Your task to perform on an android device: turn on notifications settings in the gmail app Image 0: 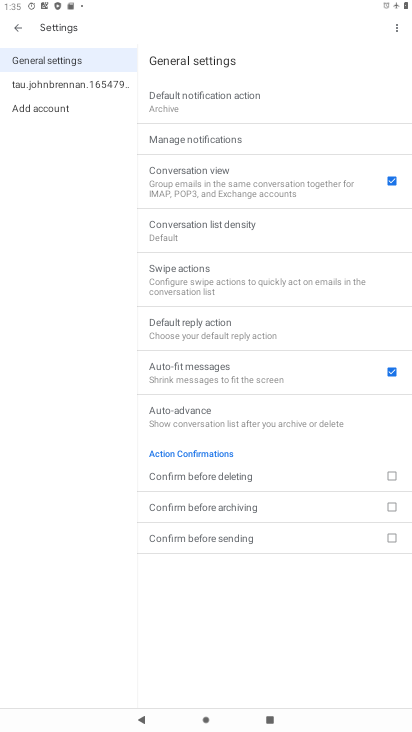
Step 0: press home button
Your task to perform on an android device: turn on notifications settings in the gmail app Image 1: 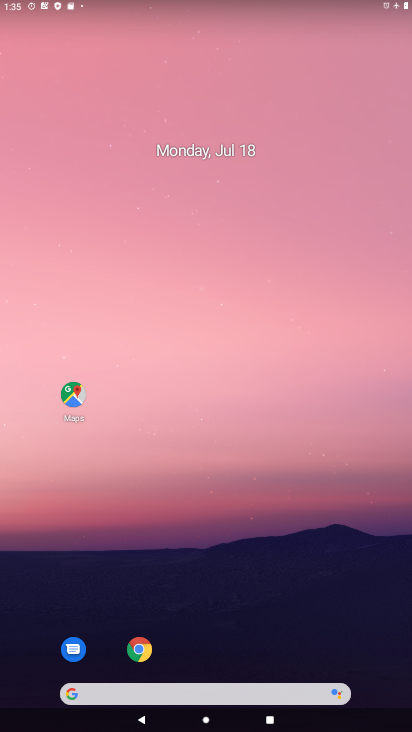
Step 1: drag from (260, 672) to (406, 693)
Your task to perform on an android device: turn on notifications settings in the gmail app Image 2: 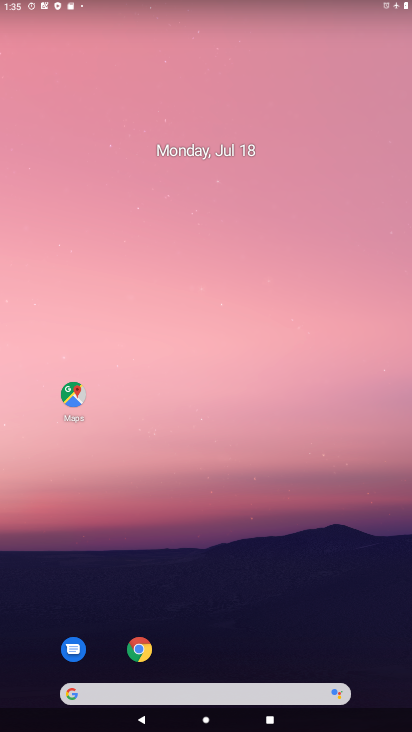
Step 2: drag from (215, 661) to (157, 9)
Your task to perform on an android device: turn on notifications settings in the gmail app Image 3: 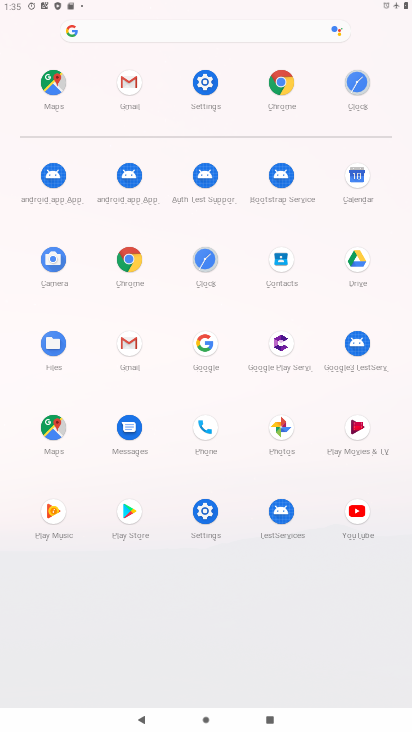
Step 3: click (130, 351)
Your task to perform on an android device: turn on notifications settings in the gmail app Image 4: 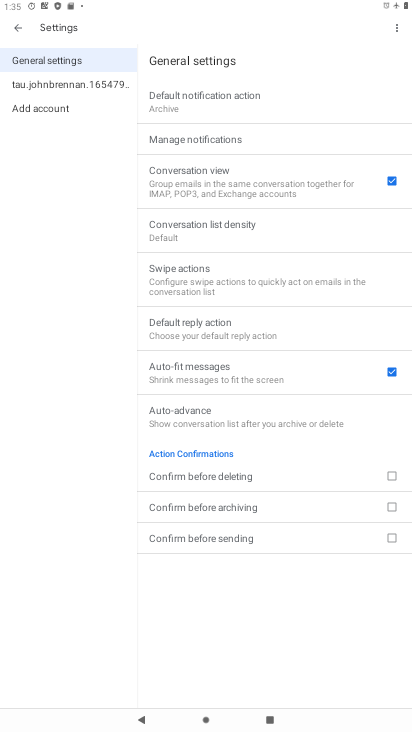
Step 4: click (179, 127)
Your task to perform on an android device: turn on notifications settings in the gmail app Image 5: 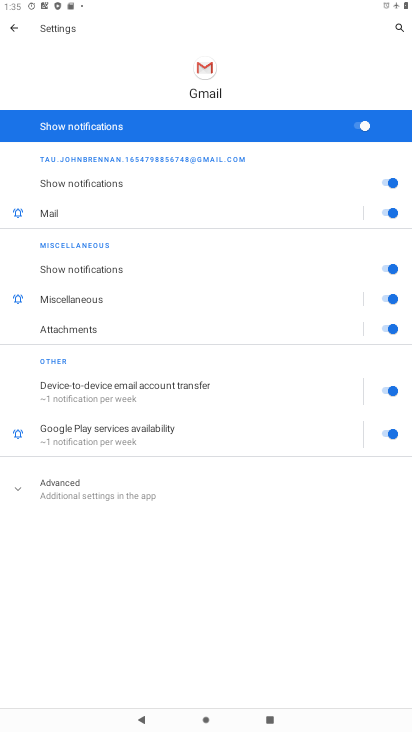
Step 5: press home button
Your task to perform on an android device: turn on notifications settings in the gmail app Image 6: 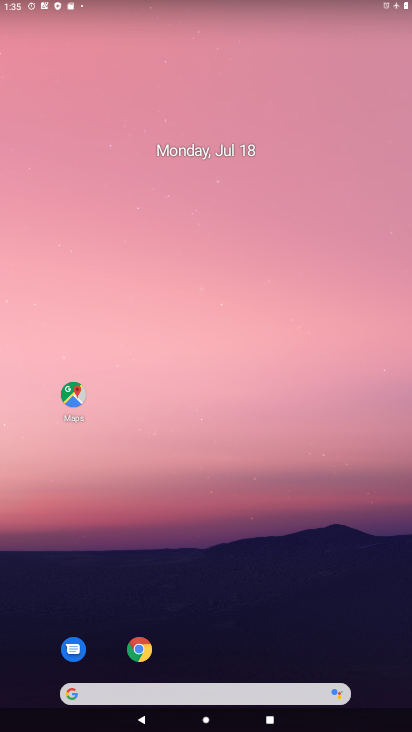
Step 6: drag from (229, 685) to (156, 17)
Your task to perform on an android device: turn on notifications settings in the gmail app Image 7: 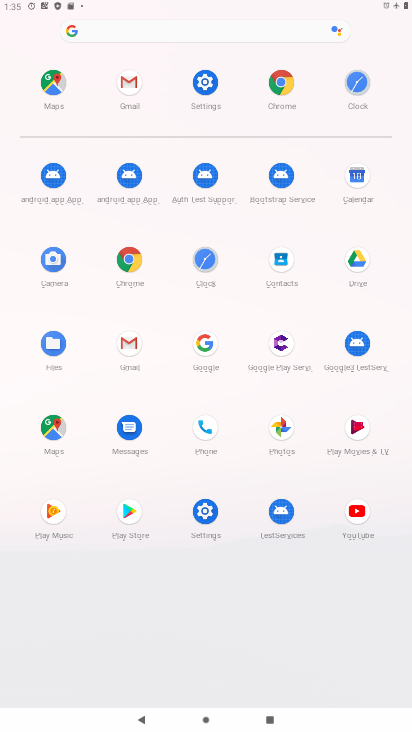
Step 7: click (131, 344)
Your task to perform on an android device: turn on notifications settings in the gmail app Image 8: 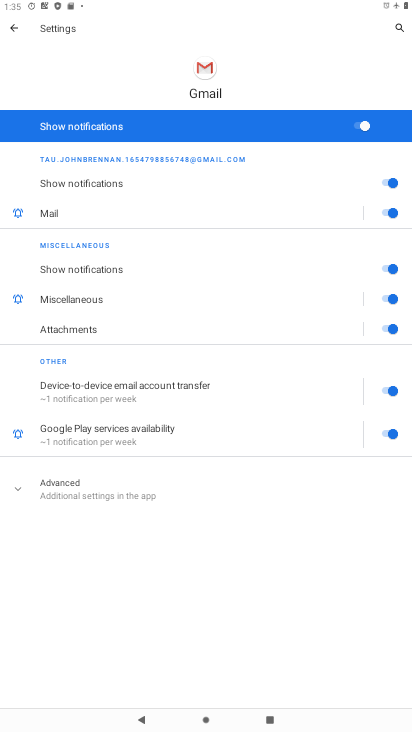
Step 8: task complete